Your task to perform on an android device: Turn on the flashlight Image 0: 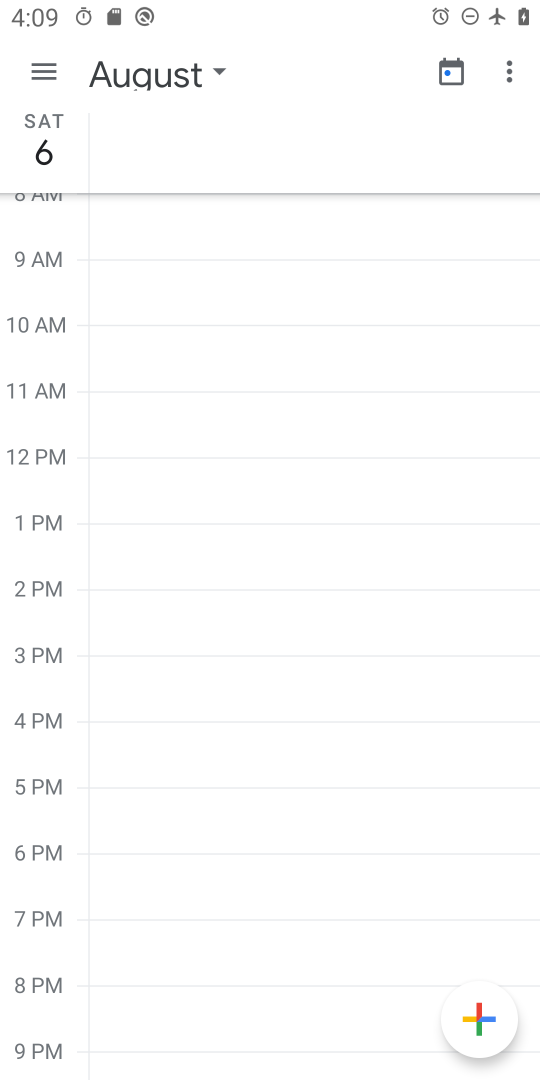
Step 0: press home button
Your task to perform on an android device: Turn on the flashlight Image 1: 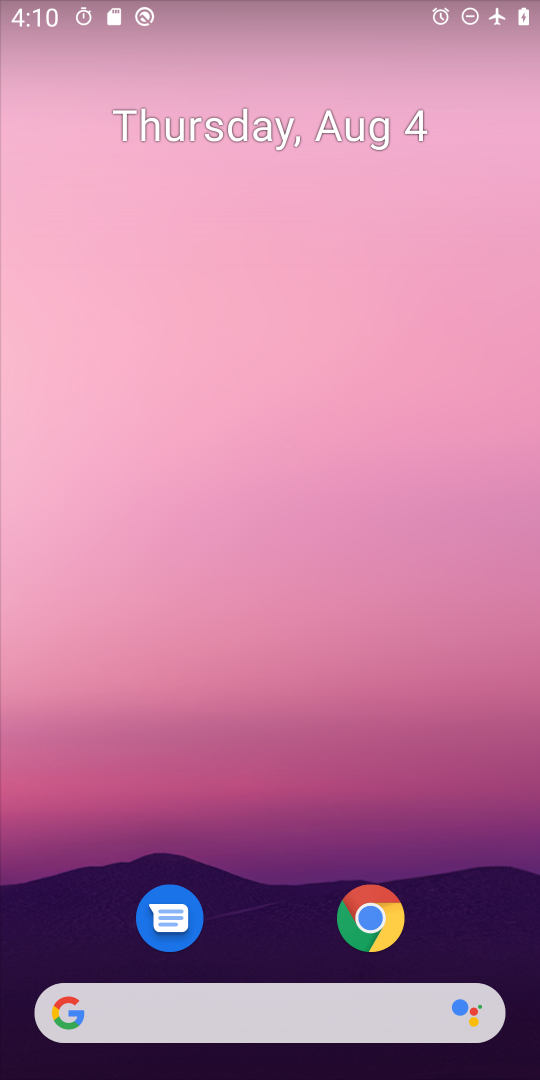
Step 1: drag from (286, 902) to (235, 270)
Your task to perform on an android device: Turn on the flashlight Image 2: 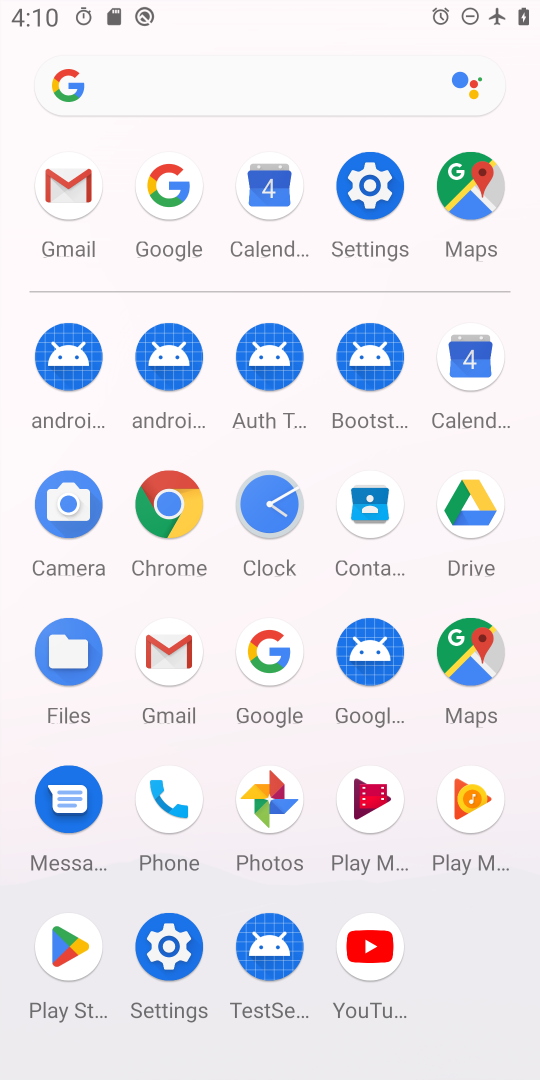
Step 2: click (350, 219)
Your task to perform on an android device: Turn on the flashlight Image 3: 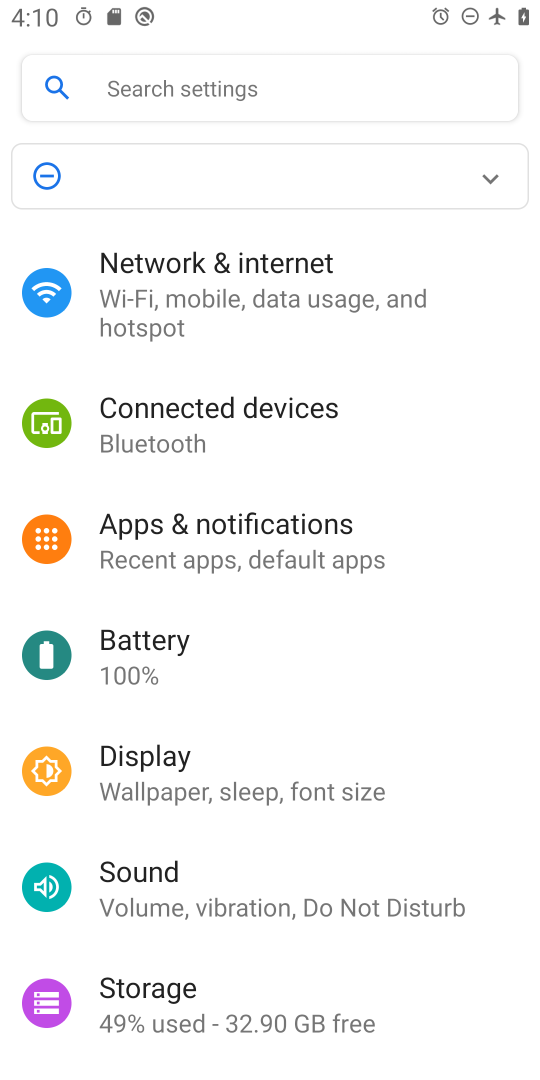
Step 3: task complete